Your task to perform on an android device: Go to privacy settings Image 0: 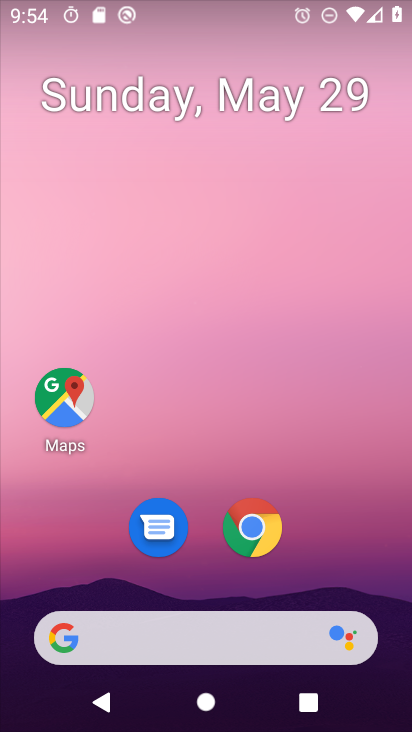
Step 0: drag from (388, 638) to (326, 28)
Your task to perform on an android device: Go to privacy settings Image 1: 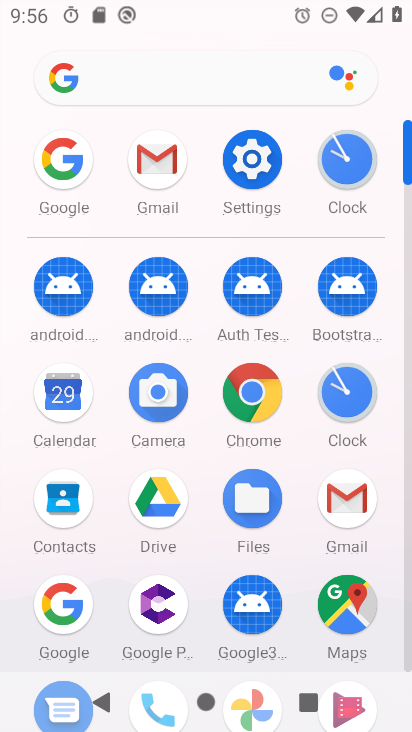
Step 1: click (264, 173)
Your task to perform on an android device: Go to privacy settings Image 2: 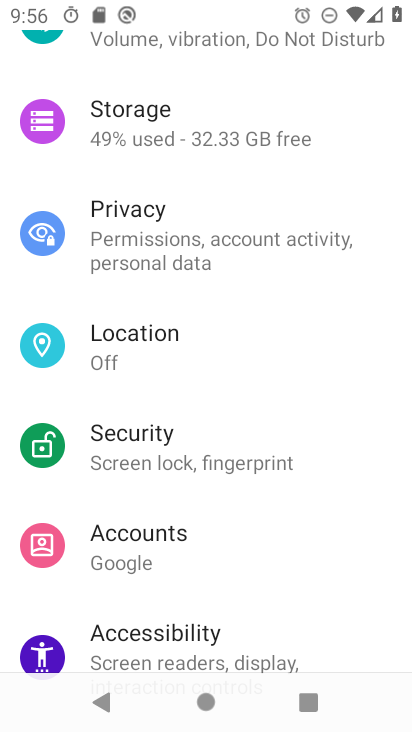
Step 2: click (128, 217)
Your task to perform on an android device: Go to privacy settings Image 3: 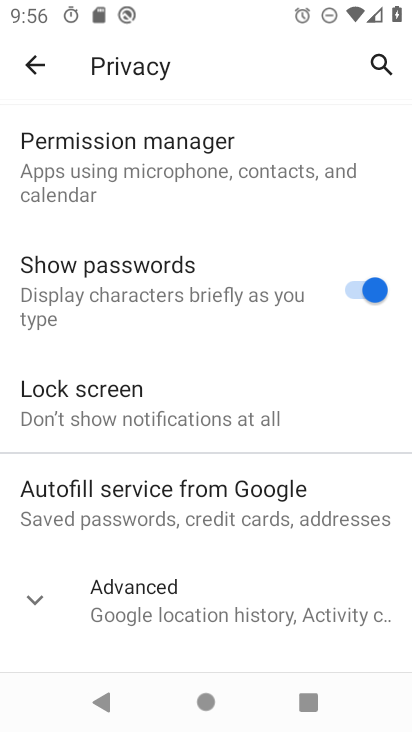
Step 3: task complete